Your task to perform on an android device: Do I have any events this weekend? Image 0: 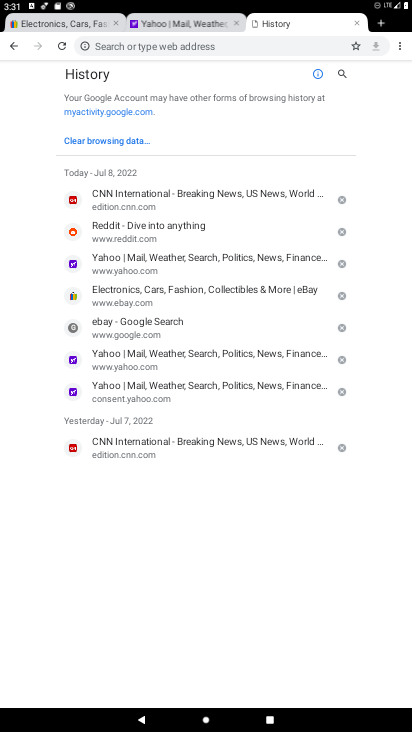
Step 0: press home button
Your task to perform on an android device: Do I have any events this weekend? Image 1: 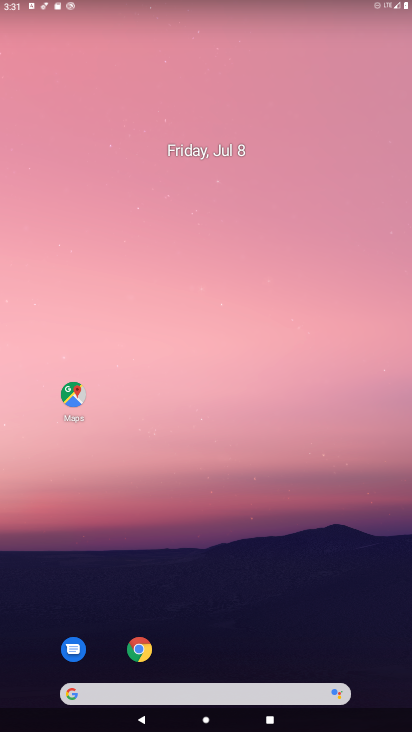
Step 1: drag from (346, 637) to (323, 90)
Your task to perform on an android device: Do I have any events this weekend? Image 2: 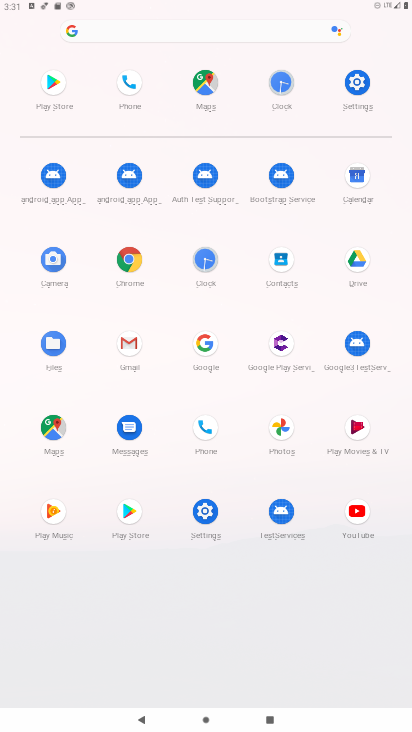
Step 2: click (357, 174)
Your task to perform on an android device: Do I have any events this weekend? Image 3: 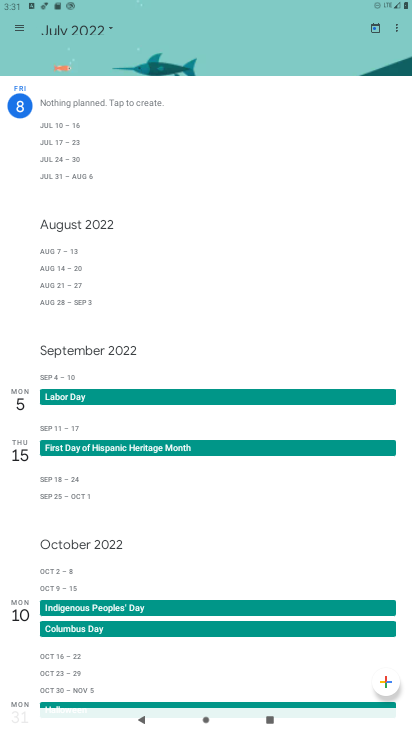
Step 3: click (20, 26)
Your task to perform on an android device: Do I have any events this weekend? Image 4: 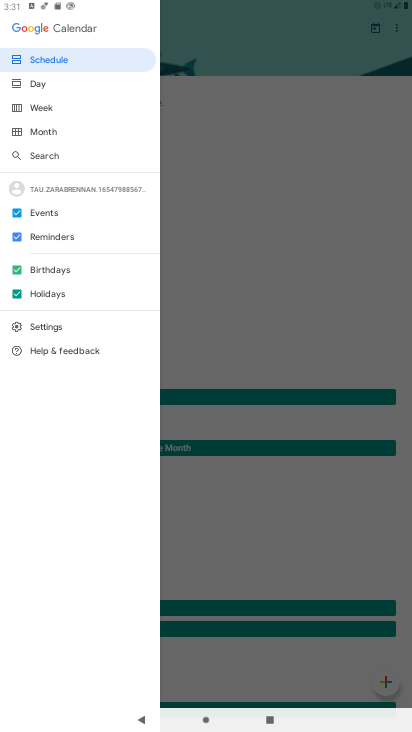
Step 4: click (26, 106)
Your task to perform on an android device: Do I have any events this weekend? Image 5: 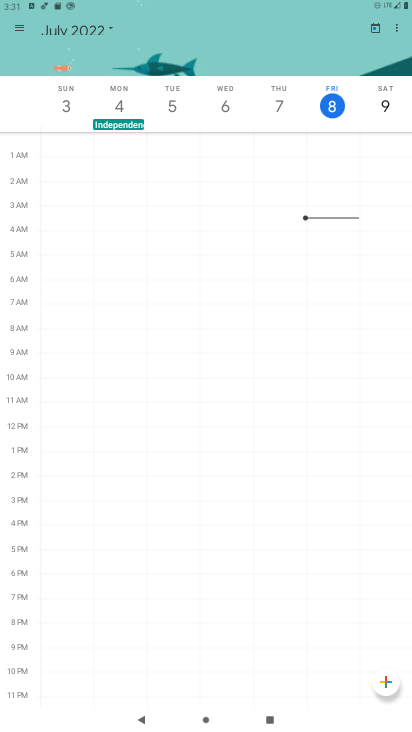
Step 5: task complete